Your task to perform on an android device: turn off javascript in the chrome app Image 0: 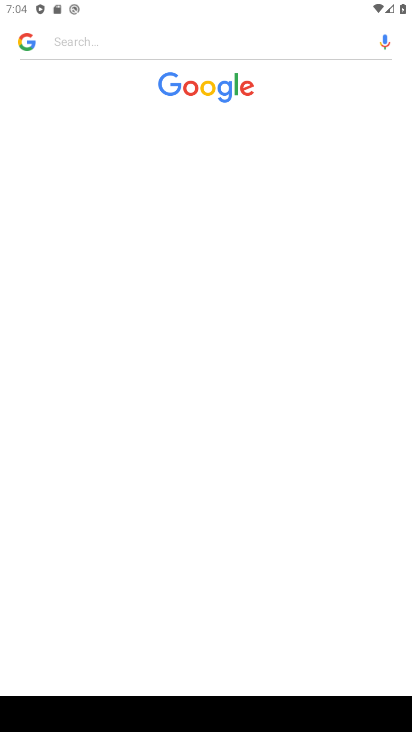
Step 0: press home button
Your task to perform on an android device: turn off javascript in the chrome app Image 1: 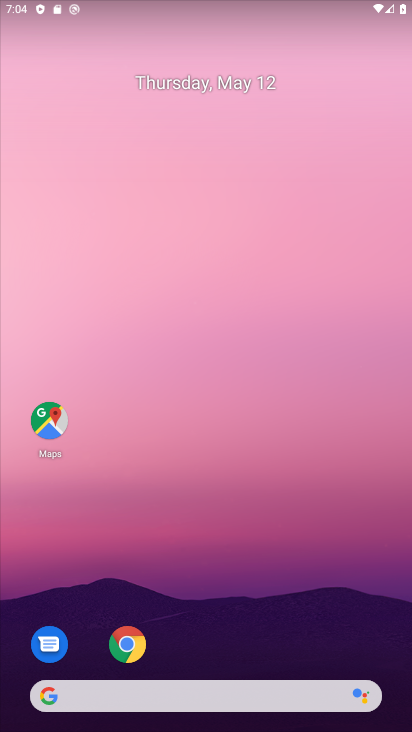
Step 1: drag from (295, 680) to (323, 165)
Your task to perform on an android device: turn off javascript in the chrome app Image 2: 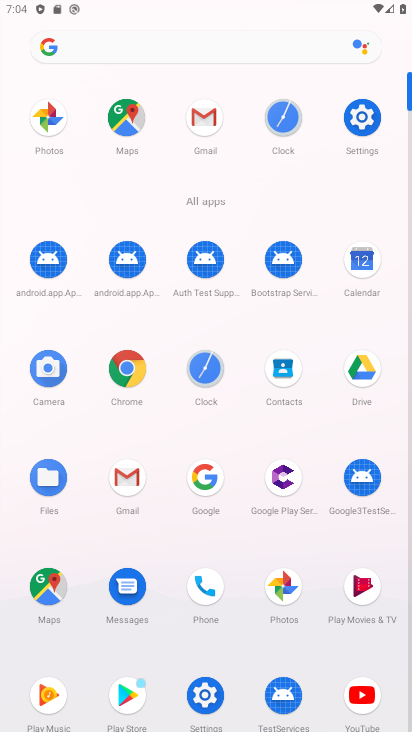
Step 2: click (129, 375)
Your task to perform on an android device: turn off javascript in the chrome app Image 3: 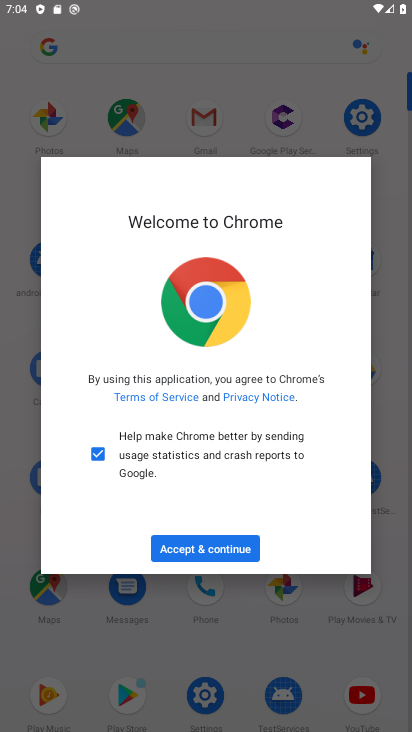
Step 3: click (218, 545)
Your task to perform on an android device: turn off javascript in the chrome app Image 4: 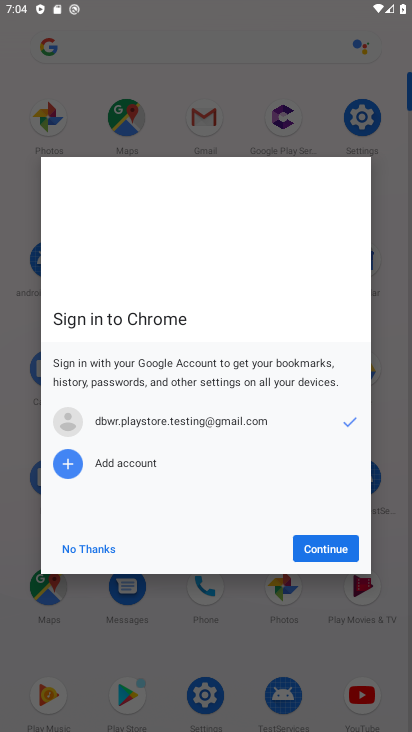
Step 4: click (318, 553)
Your task to perform on an android device: turn off javascript in the chrome app Image 5: 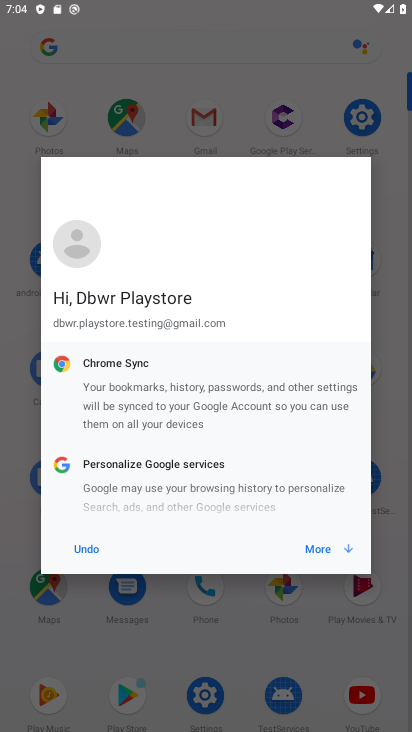
Step 5: click (352, 547)
Your task to perform on an android device: turn off javascript in the chrome app Image 6: 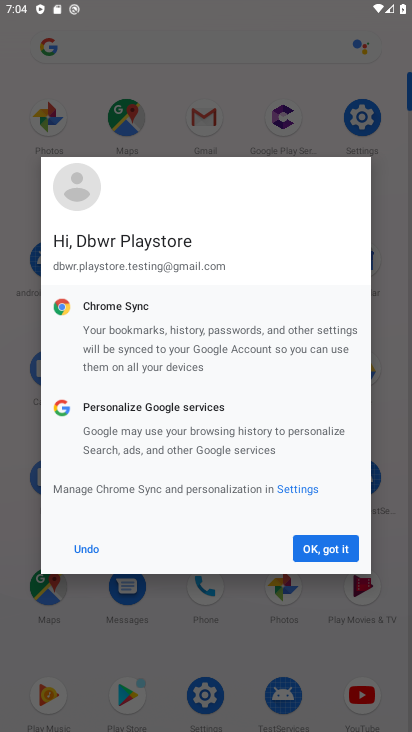
Step 6: click (348, 543)
Your task to perform on an android device: turn off javascript in the chrome app Image 7: 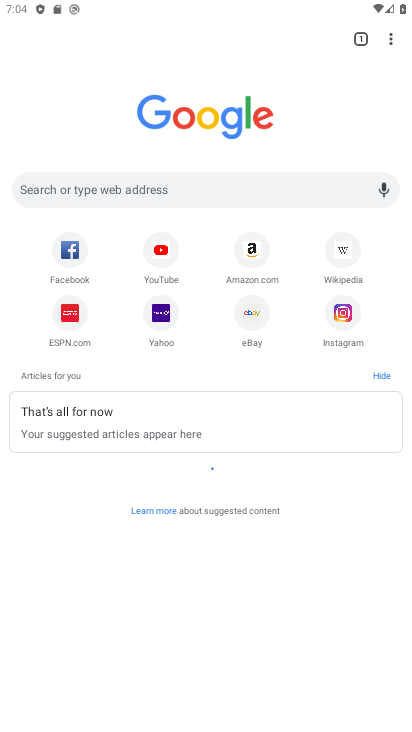
Step 7: click (391, 61)
Your task to perform on an android device: turn off javascript in the chrome app Image 8: 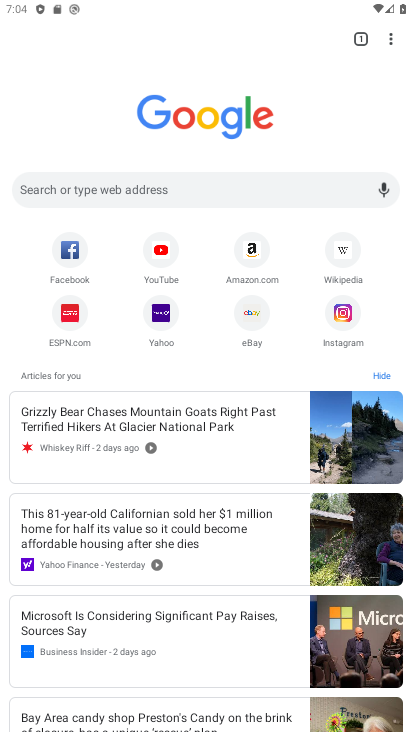
Step 8: click (388, 53)
Your task to perform on an android device: turn off javascript in the chrome app Image 9: 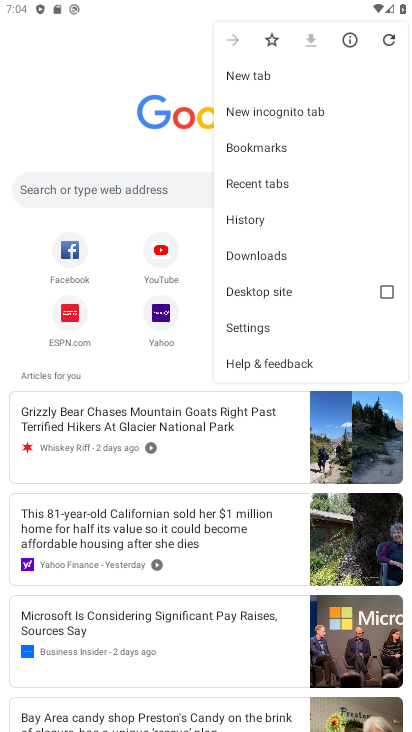
Step 9: click (243, 328)
Your task to perform on an android device: turn off javascript in the chrome app Image 10: 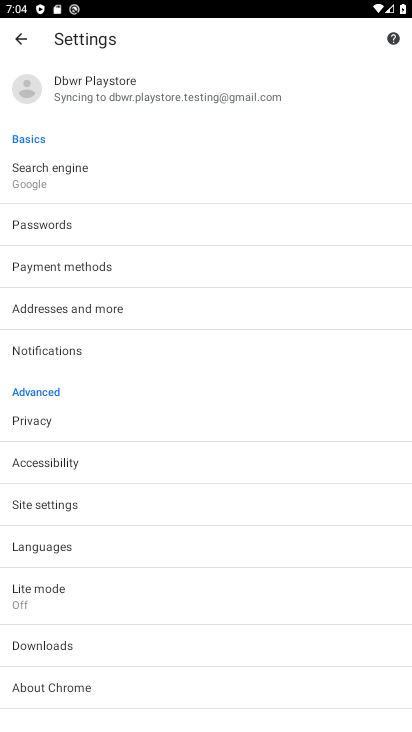
Step 10: click (74, 510)
Your task to perform on an android device: turn off javascript in the chrome app Image 11: 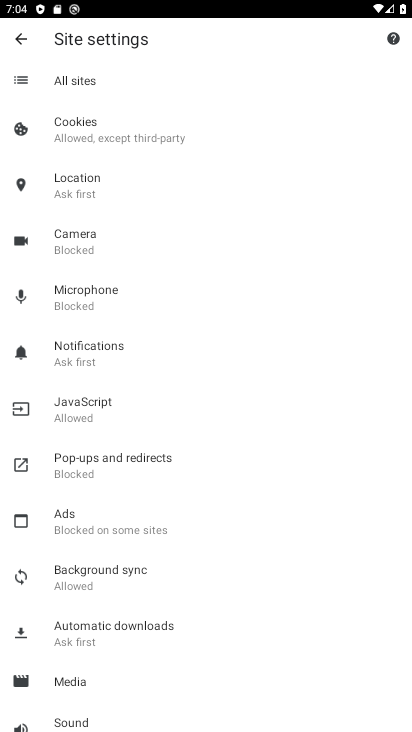
Step 11: click (67, 411)
Your task to perform on an android device: turn off javascript in the chrome app Image 12: 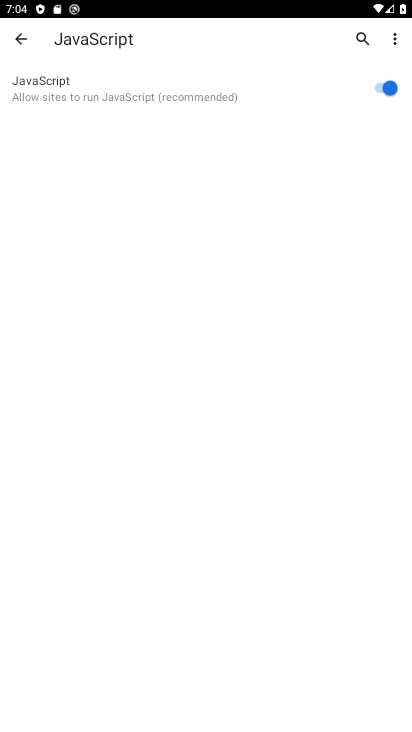
Step 12: click (374, 93)
Your task to perform on an android device: turn off javascript in the chrome app Image 13: 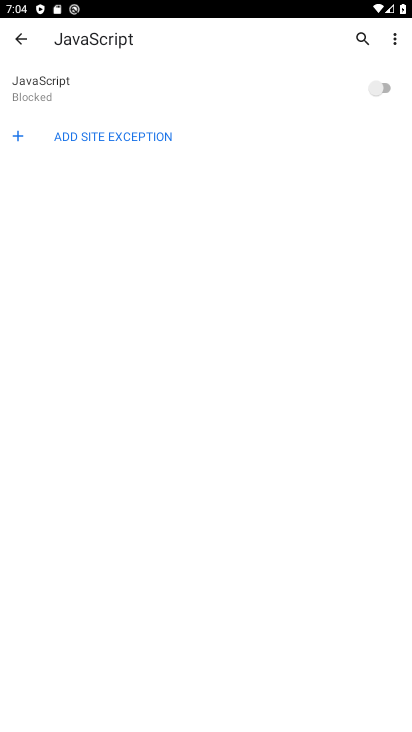
Step 13: task complete